Your task to perform on an android device: turn off javascript in the chrome app Image 0: 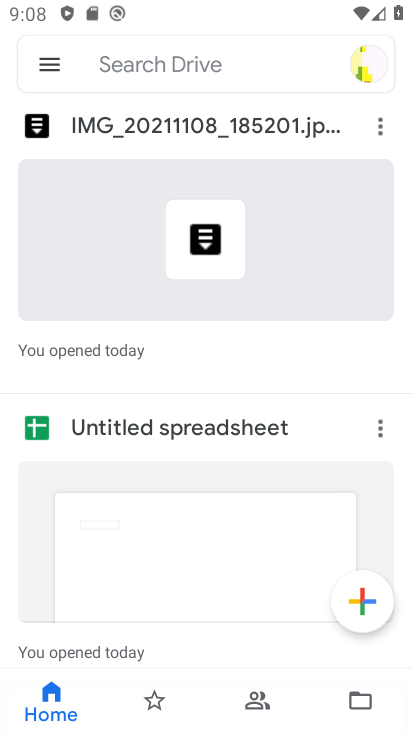
Step 0: press home button
Your task to perform on an android device: turn off javascript in the chrome app Image 1: 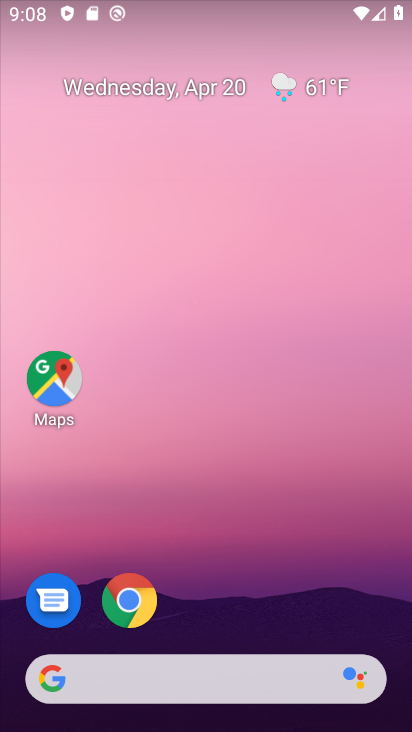
Step 1: click (136, 603)
Your task to perform on an android device: turn off javascript in the chrome app Image 2: 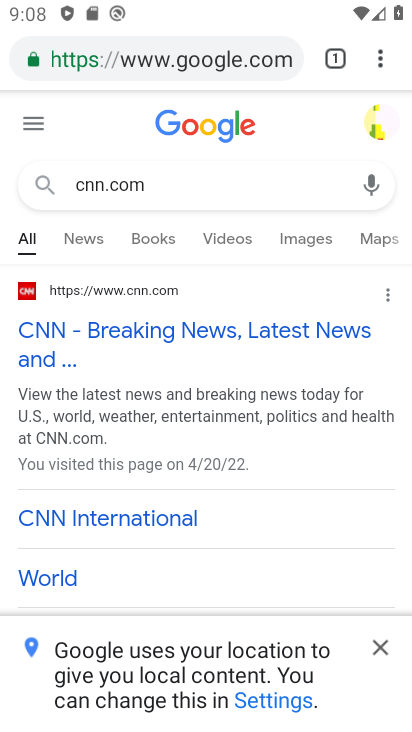
Step 2: click (377, 60)
Your task to perform on an android device: turn off javascript in the chrome app Image 3: 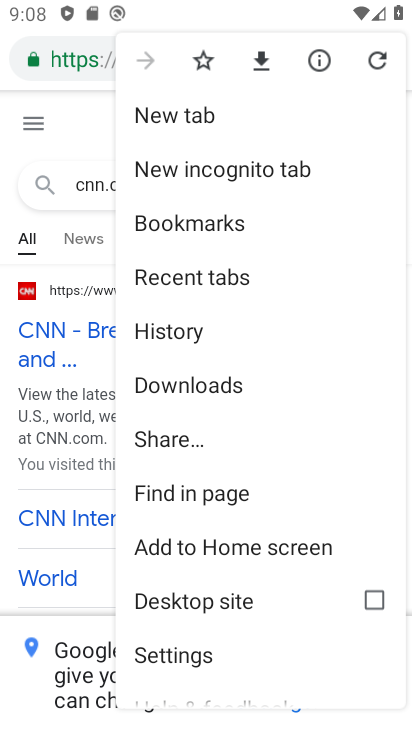
Step 3: click (168, 653)
Your task to perform on an android device: turn off javascript in the chrome app Image 4: 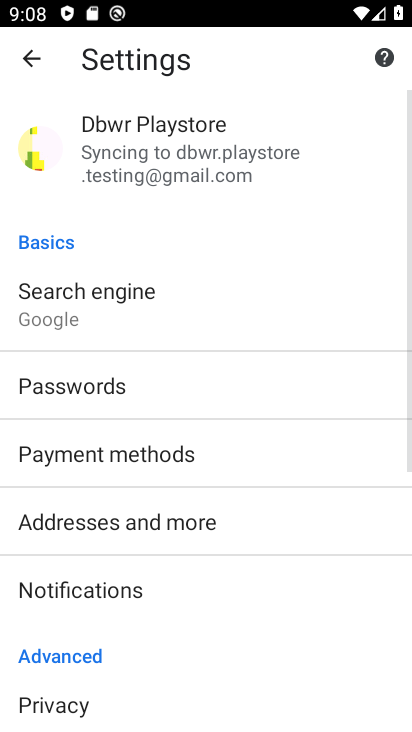
Step 4: drag from (168, 653) to (188, 58)
Your task to perform on an android device: turn off javascript in the chrome app Image 5: 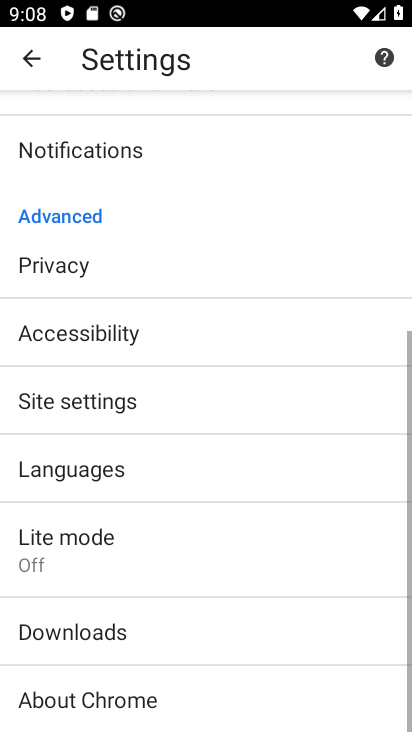
Step 5: drag from (145, 619) to (139, 278)
Your task to perform on an android device: turn off javascript in the chrome app Image 6: 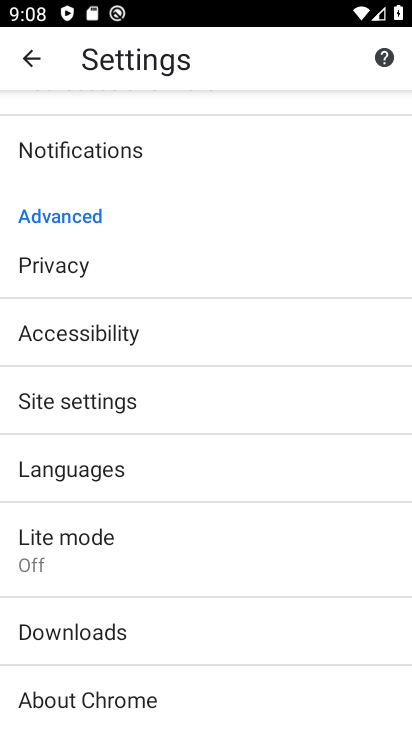
Step 6: click (94, 414)
Your task to perform on an android device: turn off javascript in the chrome app Image 7: 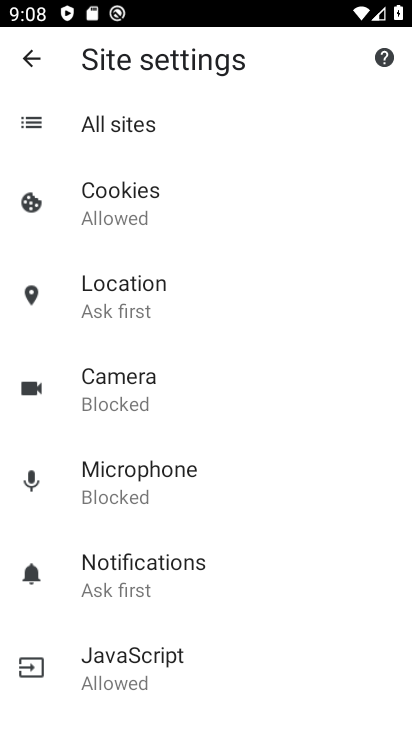
Step 7: click (155, 694)
Your task to perform on an android device: turn off javascript in the chrome app Image 8: 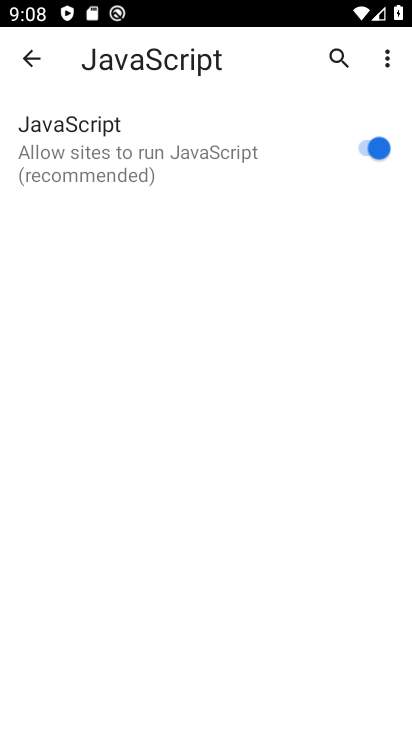
Step 8: click (368, 162)
Your task to perform on an android device: turn off javascript in the chrome app Image 9: 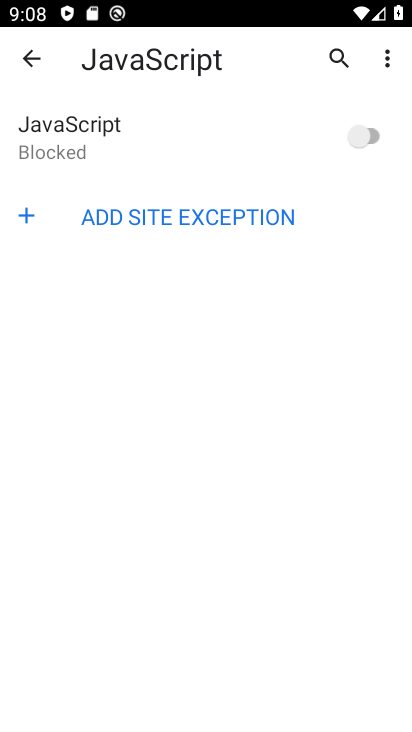
Step 9: task complete